Your task to perform on an android device: Is it going to rain today? Image 0: 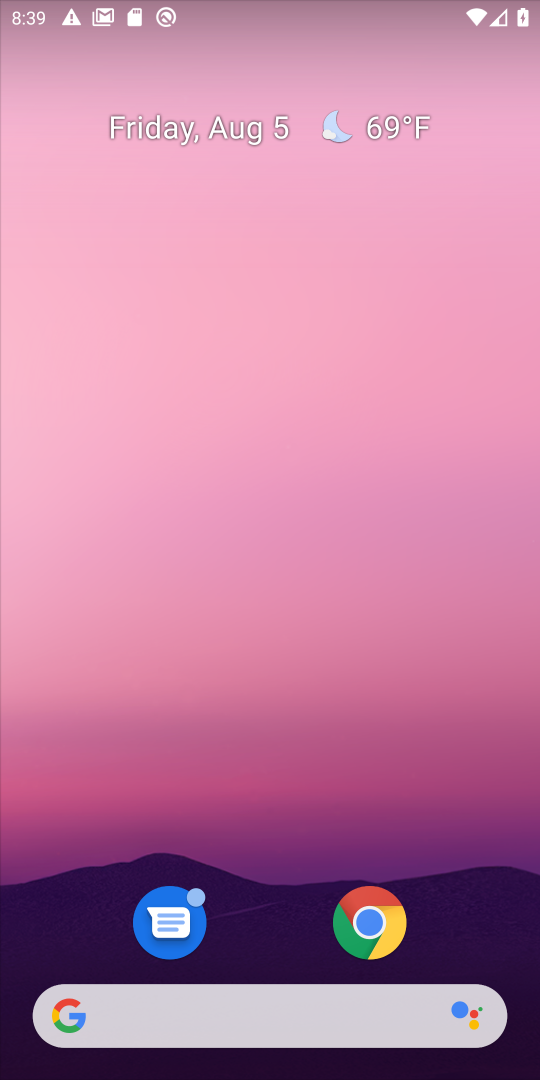
Step 0: drag from (289, 964) to (278, 134)
Your task to perform on an android device: Is it going to rain today? Image 1: 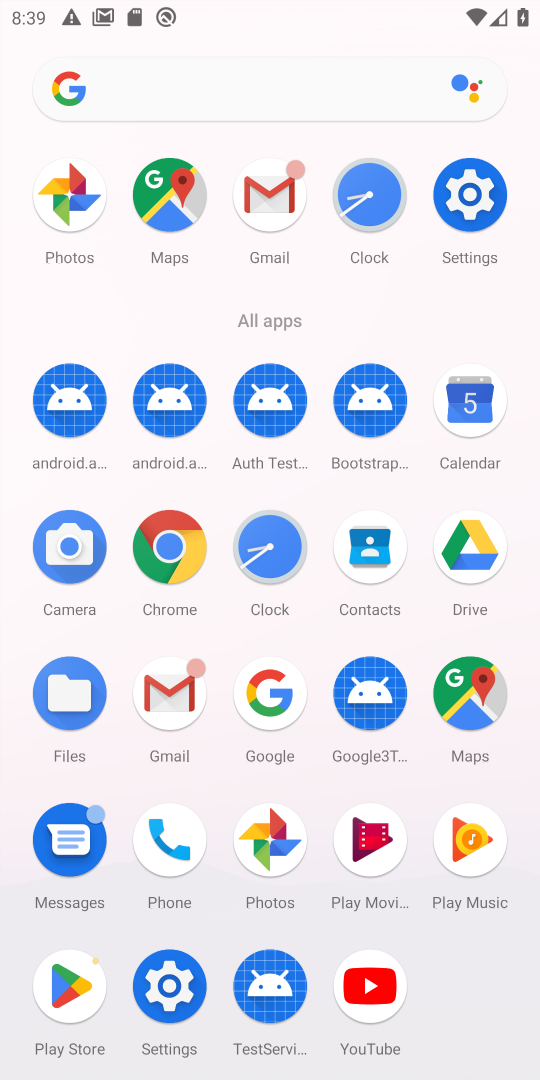
Step 1: click (170, 580)
Your task to perform on an android device: Is it going to rain today? Image 2: 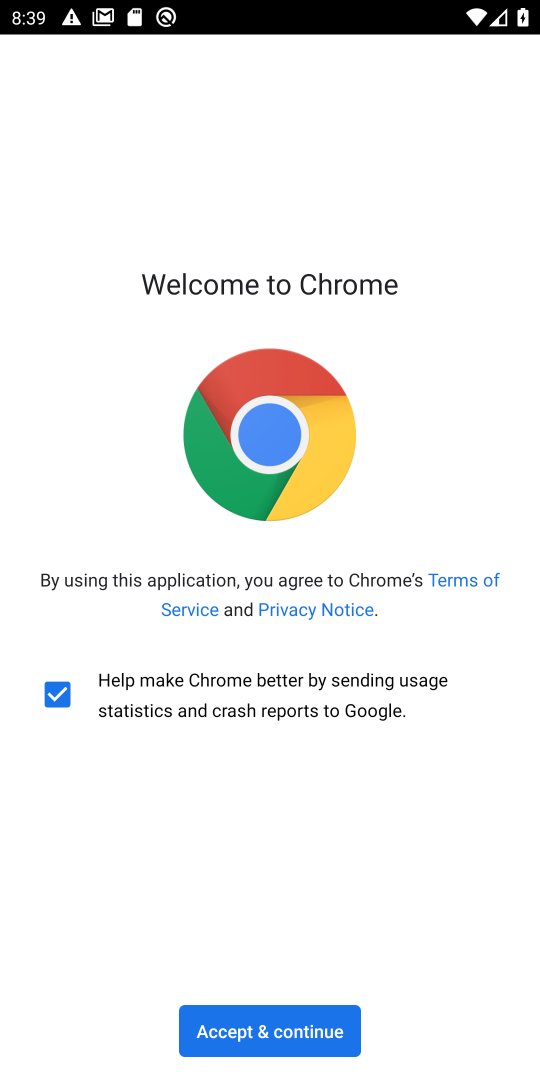
Step 2: click (332, 1041)
Your task to perform on an android device: Is it going to rain today? Image 3: 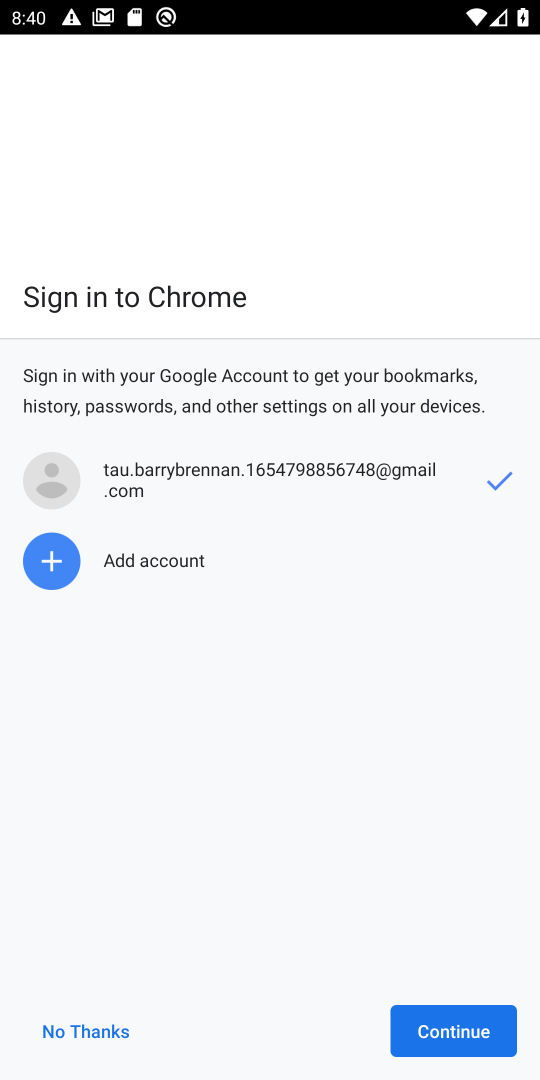
Step 3: click (415, 1031)
Your task to perform on an android device: Is it going to rain today? Image 4: 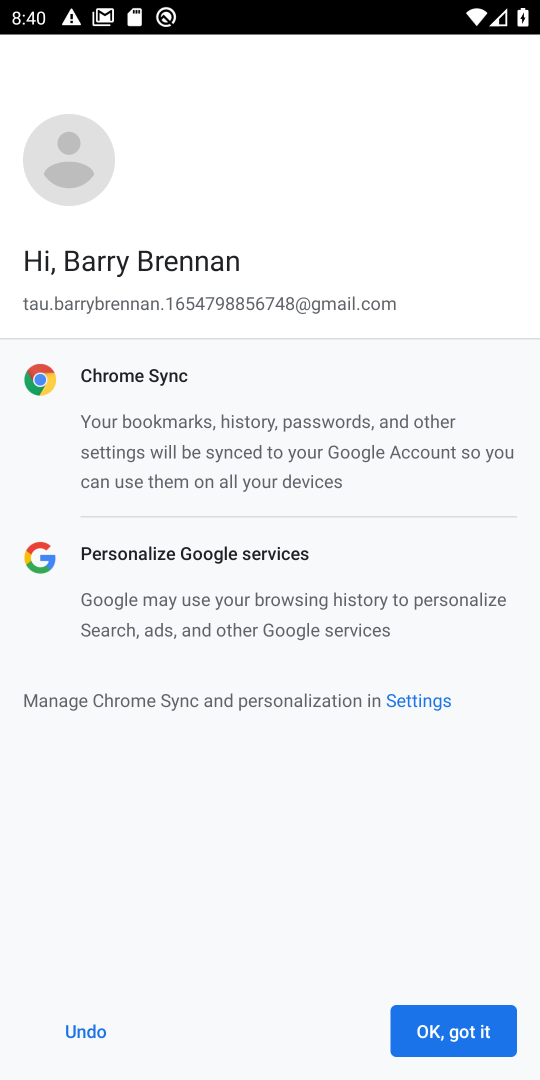
Step 4: click (448, 1038)
Your task to perform on an android device: Is it going to rain today? Image 5: 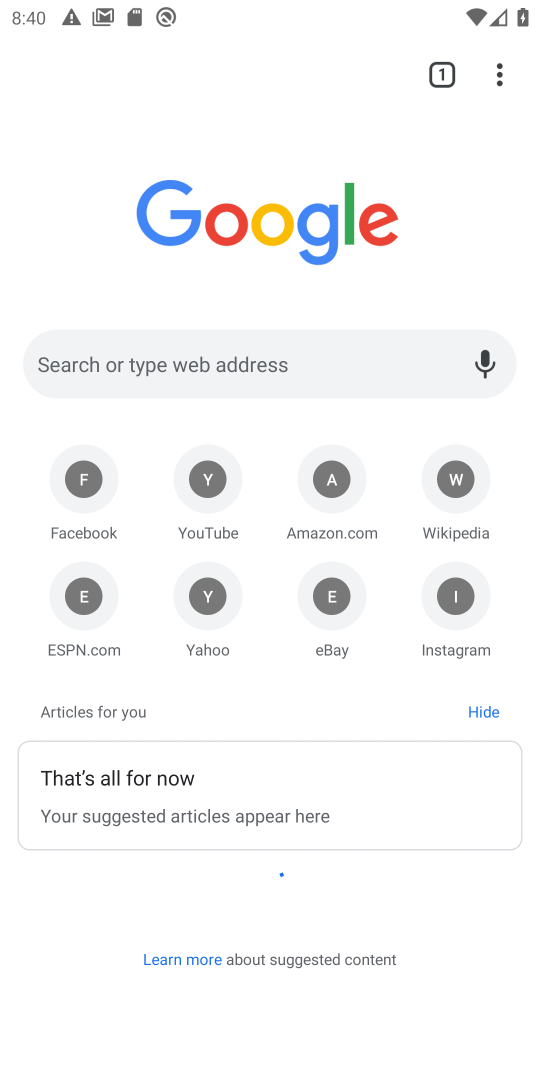
Step 5: click (260, 359)
Your task to perform on an android device: Is it going to rain today? Image 6: 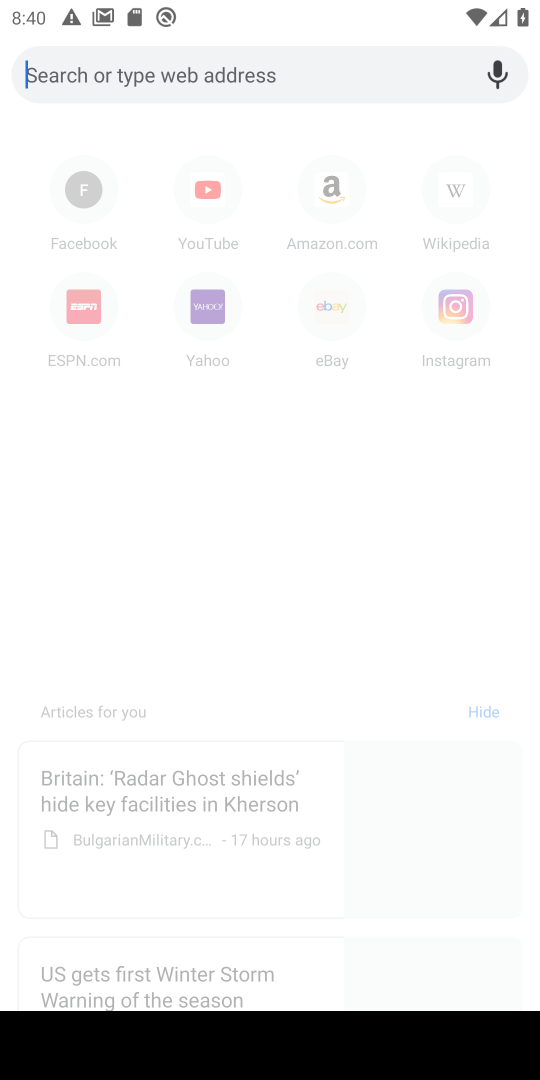
Step 6: click (226, 81)
Your task to perform on an android device: Is it going to rain today? Image 7: 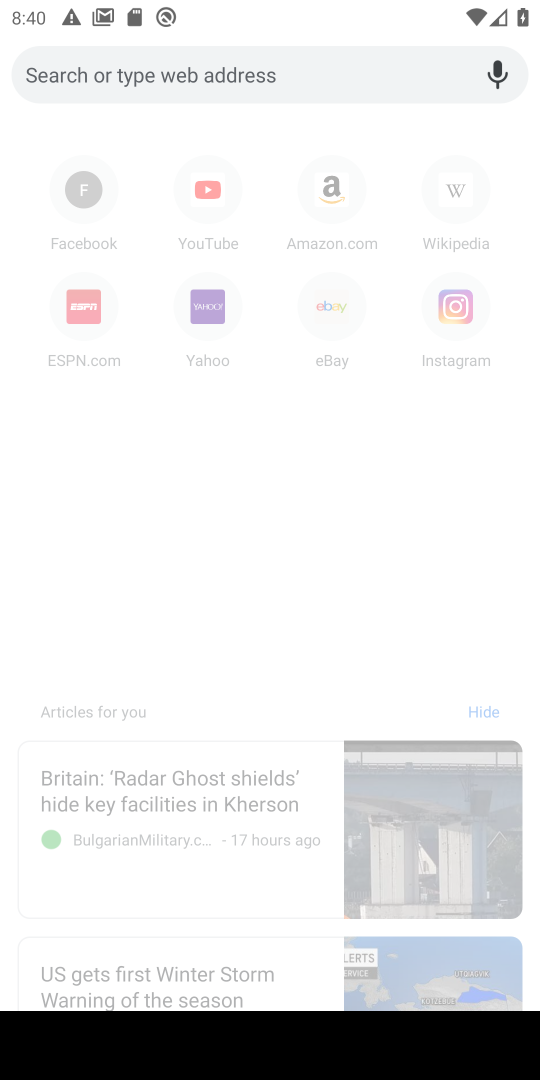
Step 7: type "Is it going to rain today?"
Your task to perform on an android device: Is it going to rain today? Image 8: 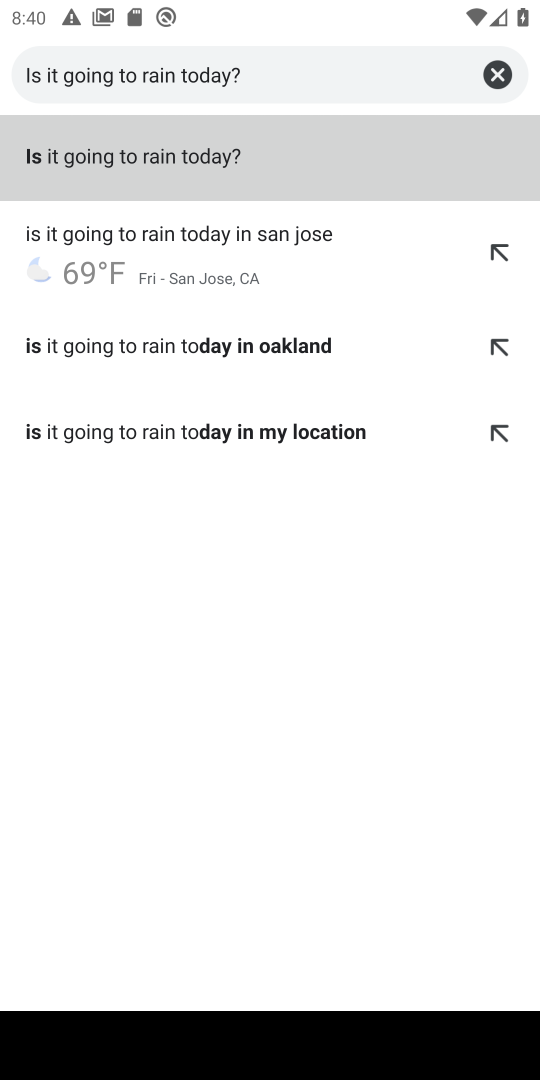
Step 8: click (213, 174)
Your task to perform on an android device: Is it going to rain today? Image 9: 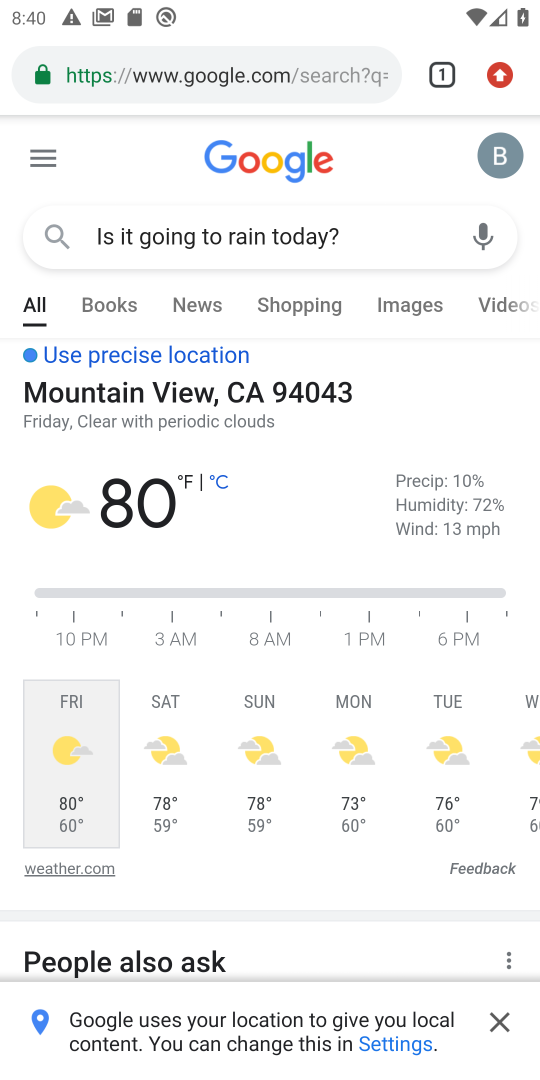
Step 9: task complete